Your task to perform on an android device: Go to Yahoo.com Image 0: 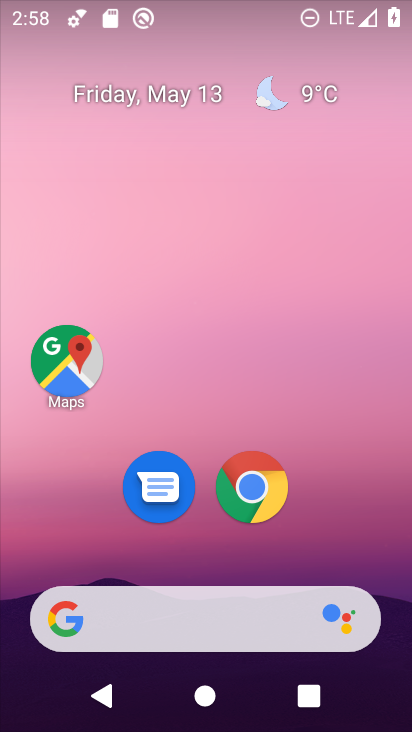
Step 0: click (241, 514)
Your task to perform on an android device: Go to Yahoo.com Image 1: 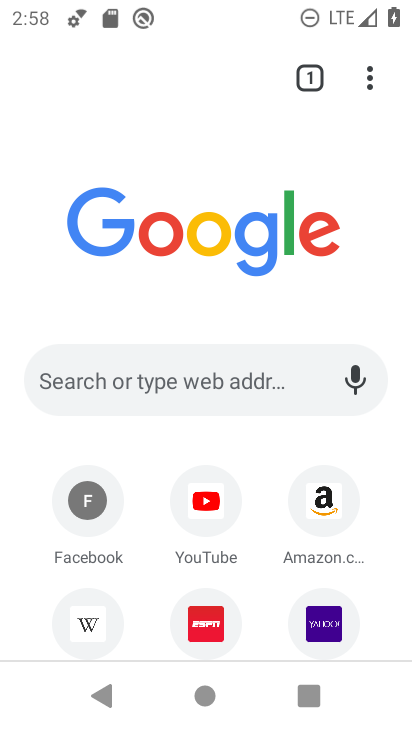
Step 1: click (331, 621)
Your task to perform on an android device: Go to Yahoo.com Image 2: 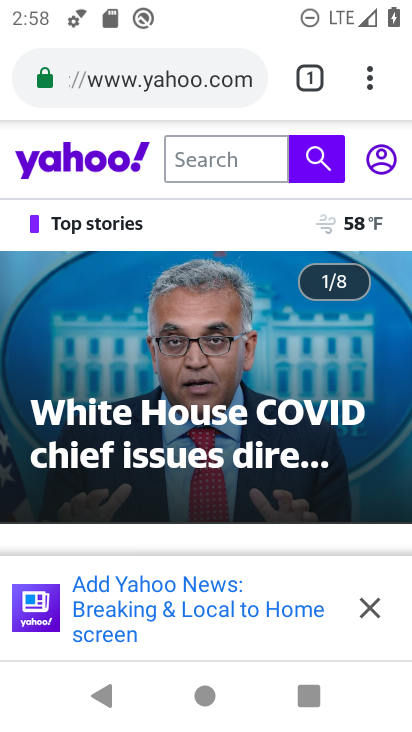
Step 2: task complete